Your task to perform on an android device: Go to Maps Image 0: 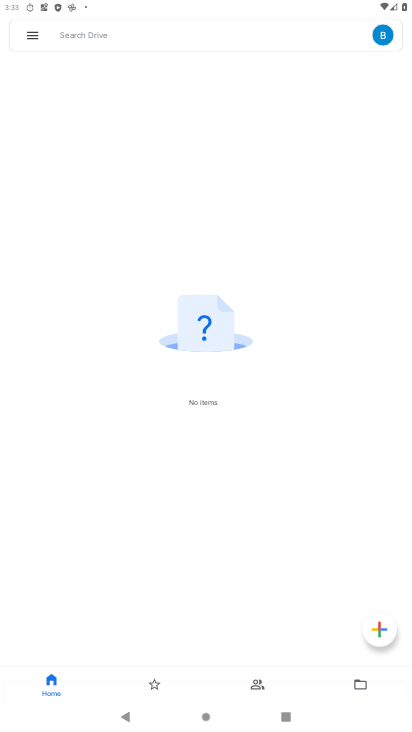
Step 0: press home button
Your task to perform on an android device: Go to Maps Image 1: 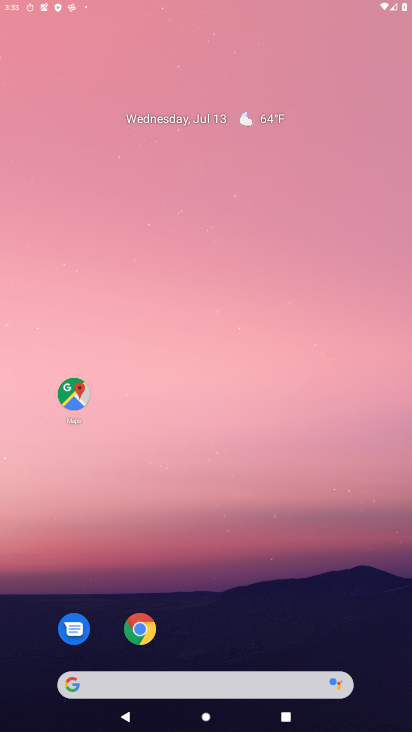
Step 1: drag from (276, 509) to (271, 90)
Your task to perform on an android device: Go to Maps Image 2: 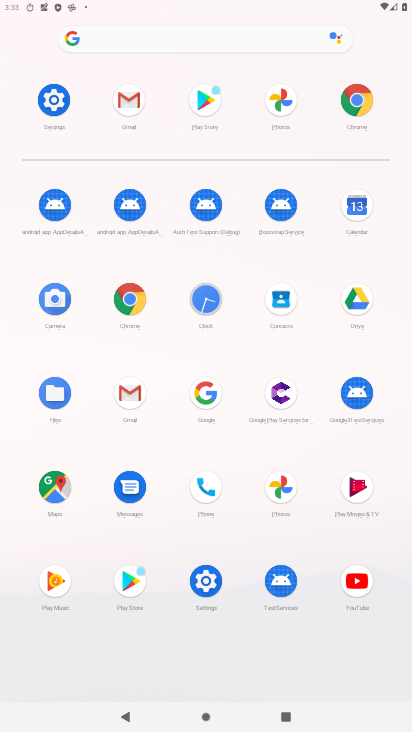
Step 2: click (54, 488)
Your task to perform on an android device: Go to Maps Image 3: 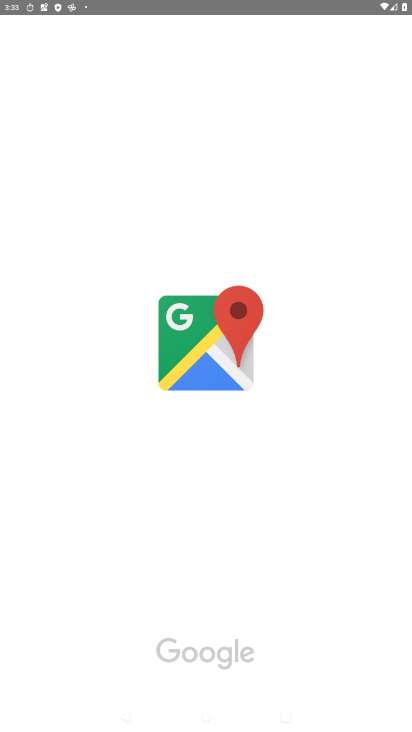
Step 3: task complete